Your task to perform on an android device: check storage Image 0: 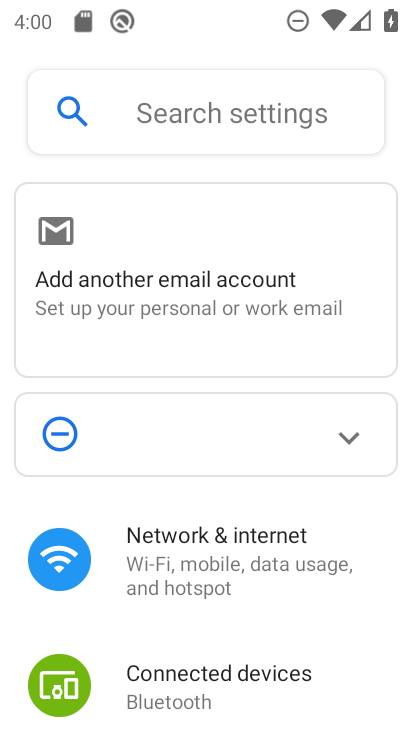
Step 0: press home button
Your task to perform on an android device: check storage Image 1: 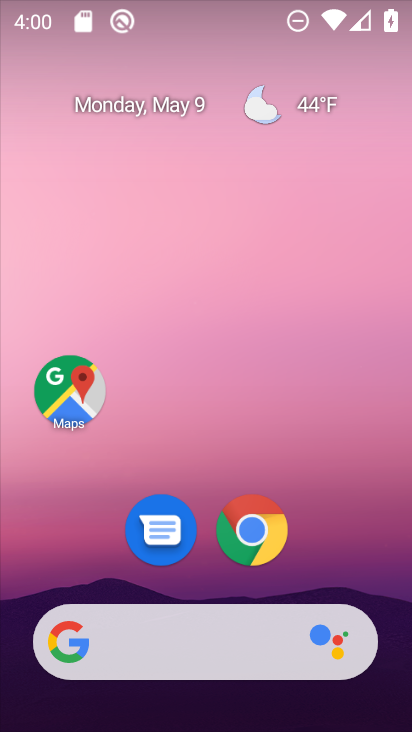
Step 1: drag from (198, 581) to (200, 59)
Your task to perform on an android device: check storage Image 2: 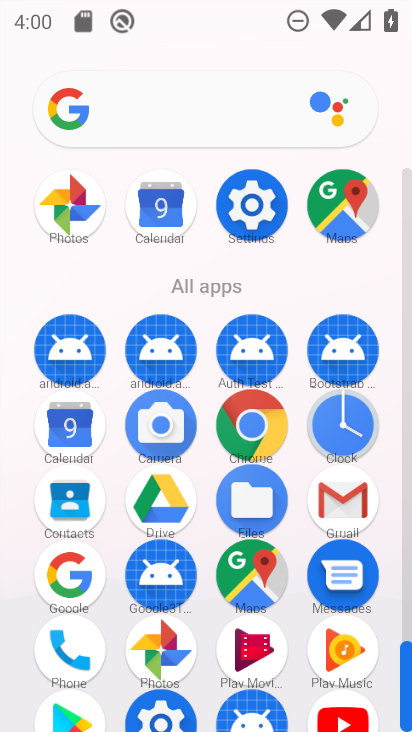
Step 2: click (248, 197)
Your task to perform on an android device: check storage Image 3: 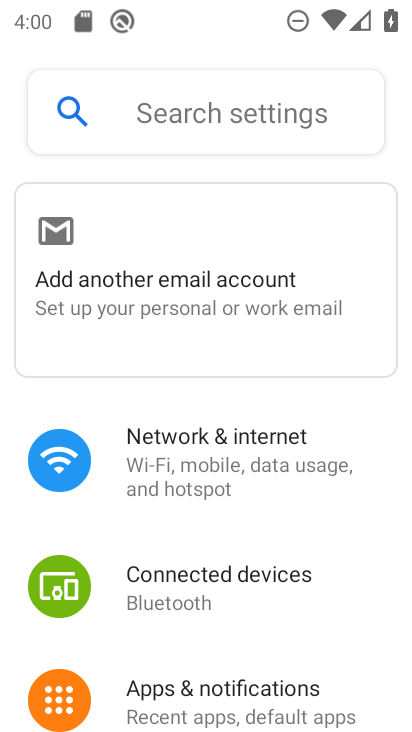
Step 3: drag from (174, 651) to (199, 224)
Your task to perform on an android device: check storage Image 4: 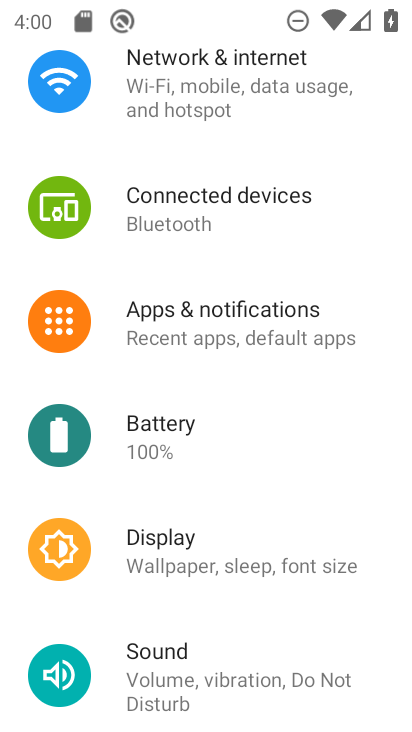
Step 4: drag from (170, 624) to (172, 309)
Your task to perform on an android device: check storage Image 5: 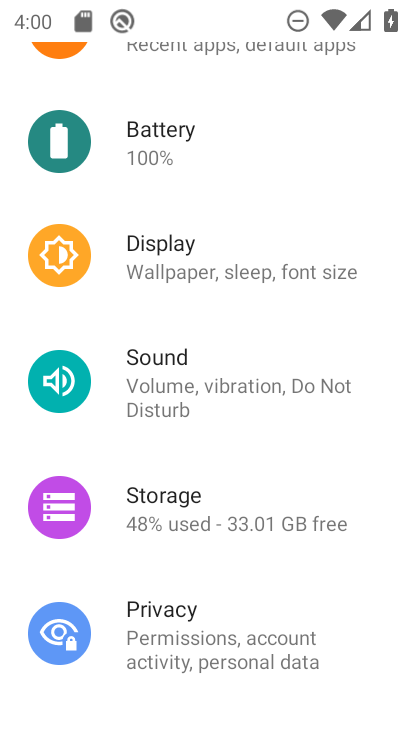
Step 5: click (217, 504)
Your task to perform on an android device: check storage Image 6: 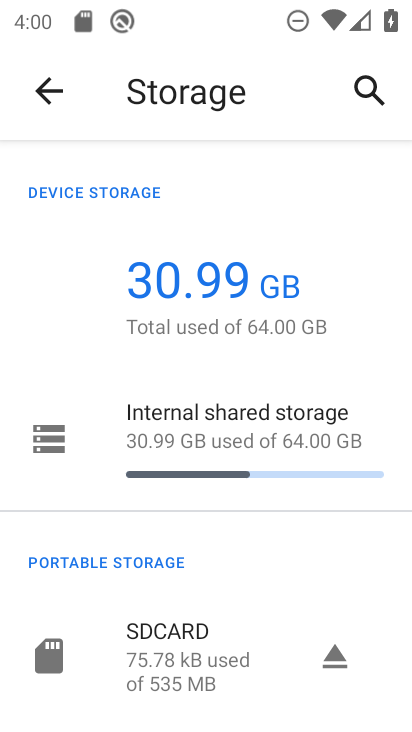
Step 6: task complete